Your task to perform on an android device: Open Google Maps Image 0: 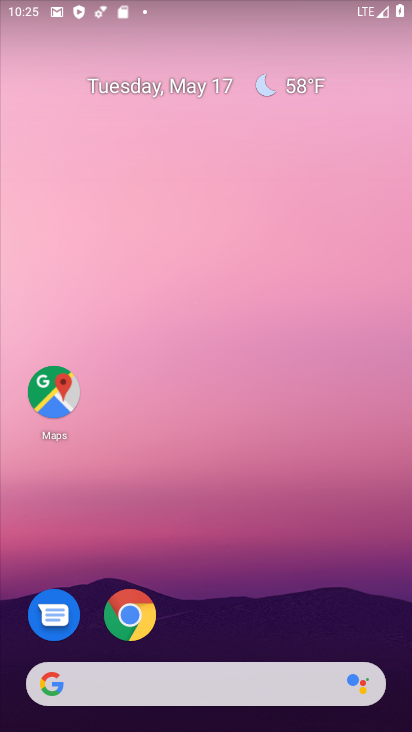
Step 0: click (47, 398)
Your task to perform on an android device: Open Google Maps Image 1: 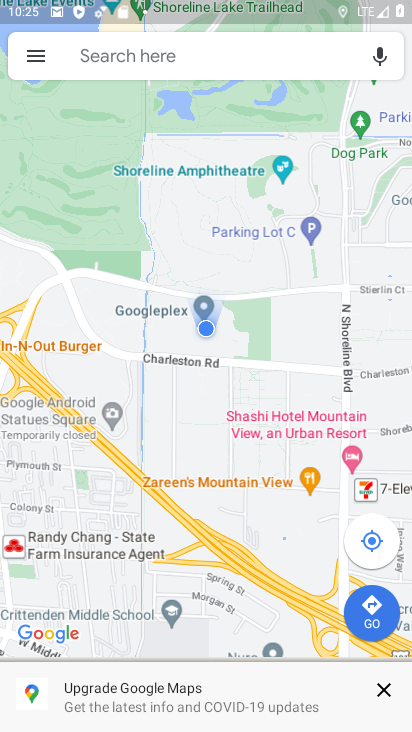
Step 1: task complete